Your task to perform on an android device: install app "Upside-Cash back on gas & food" Image 0: 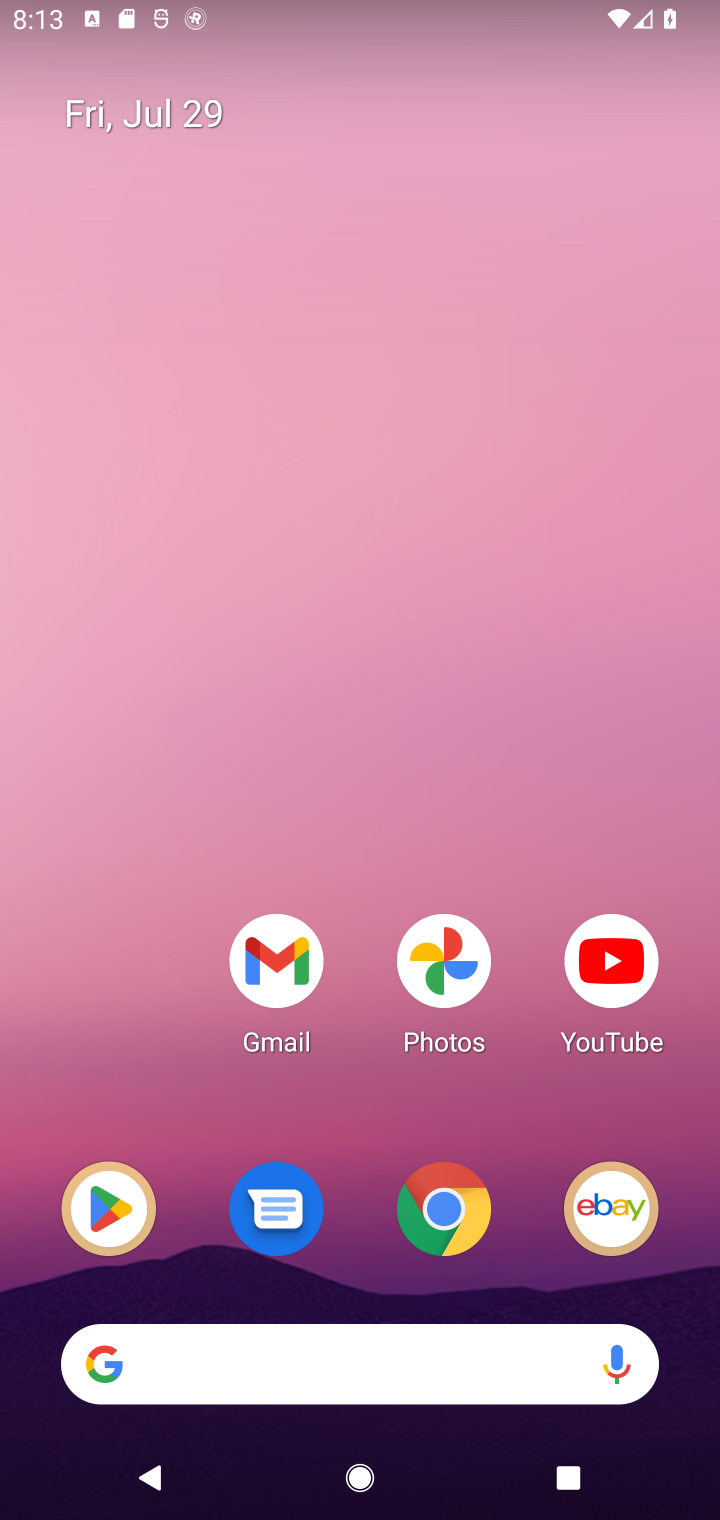
Step 0: click (117, 1225)
Your task to perform on an android device: install app "Upside-Cash back on gas & food" Image 1: 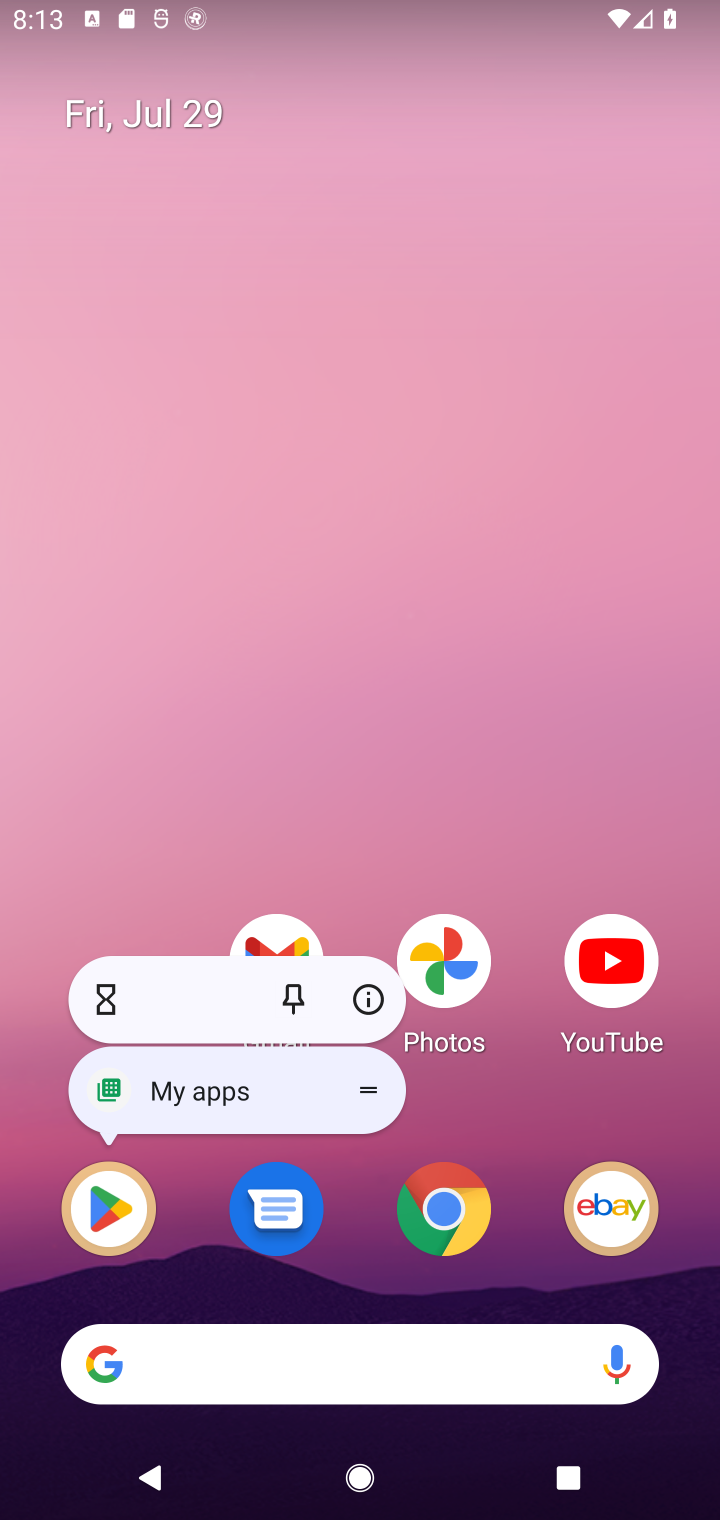
Step 1: click (112, 1221)
Your task to perform on an android device: install app "Upside-Cash back on gas & food" Image 2: 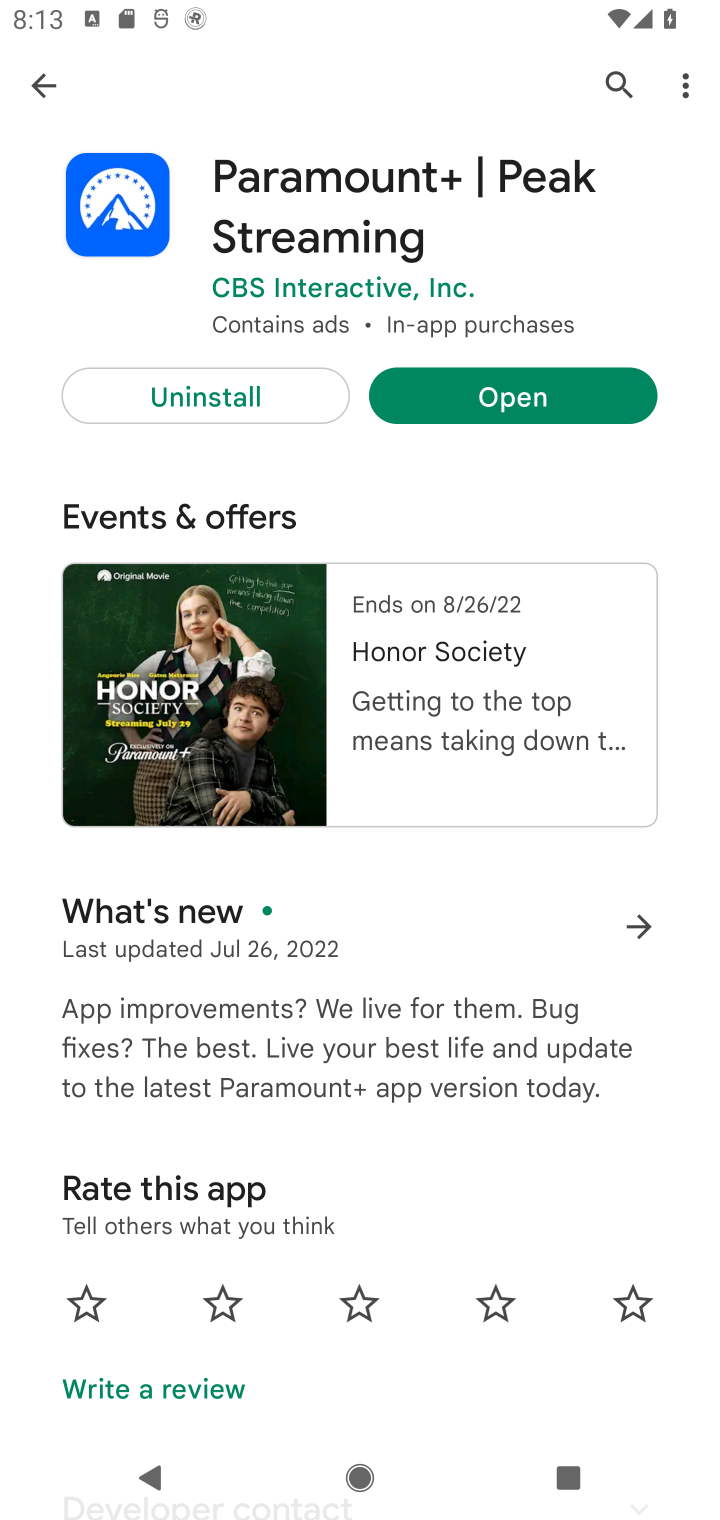
Step 2: click (611, 89)
Your task to perform on an android device: install app "Upside-Cash back on gas & food" Image 3: 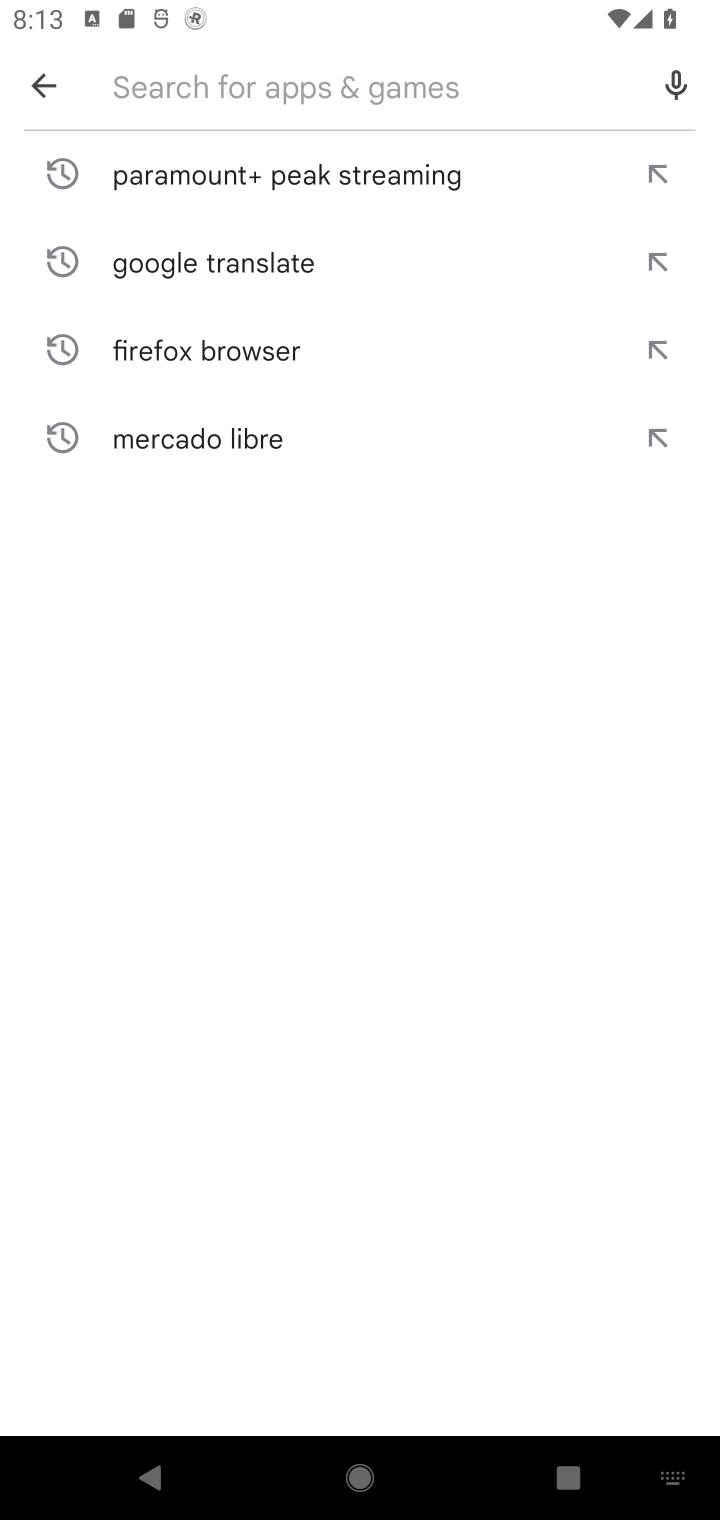
Step 3: type "Upside-Cash back on gas & food"
Your task to perform on an android device: install app "Upside-Cash back on gas & food" Image 4: 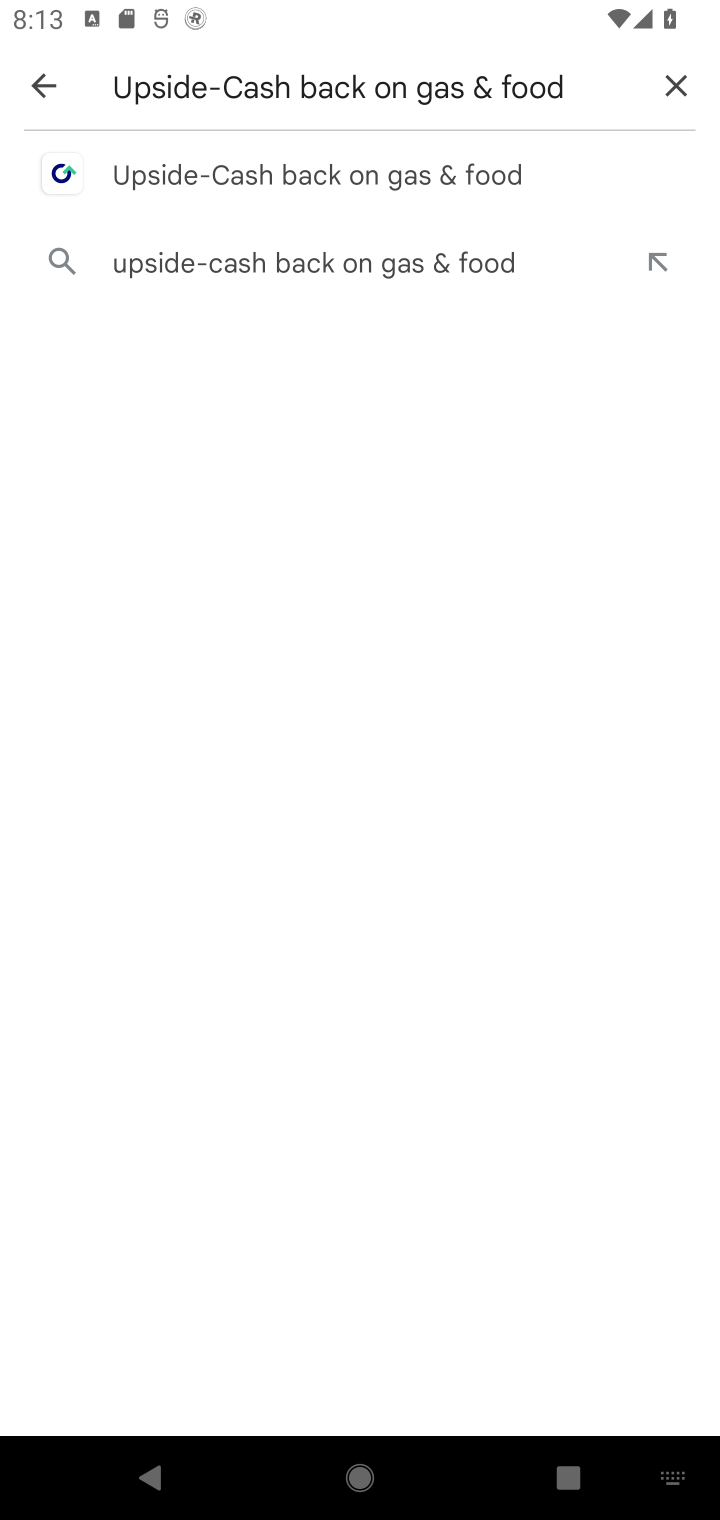
Step 4: click (218, 183)
Your task to perform on an android device: install app "Upside-Cash back on gas & food" Image 5: 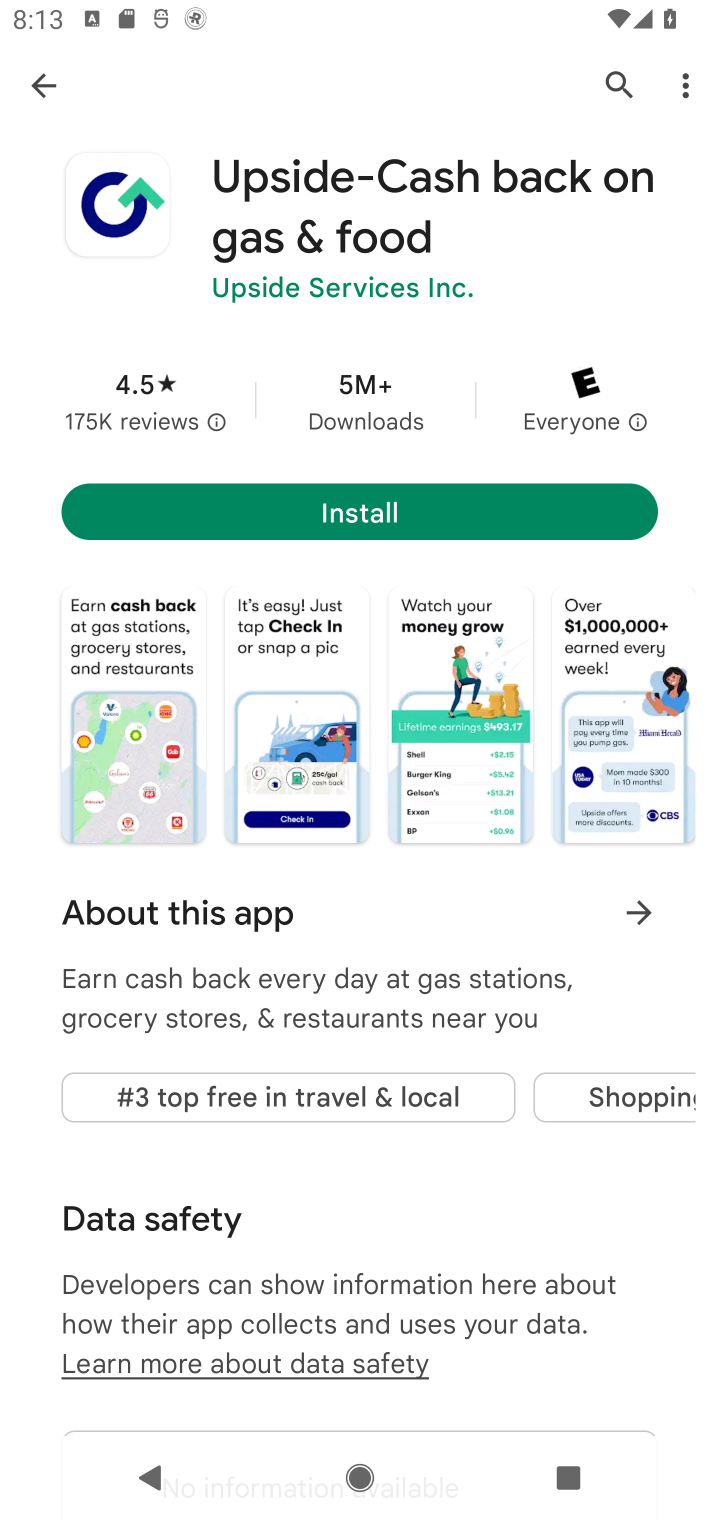
Step 5: click (309, 511)
Your task to perform on an android device: install app "Upside-Cash back on gas & food" Image 6: 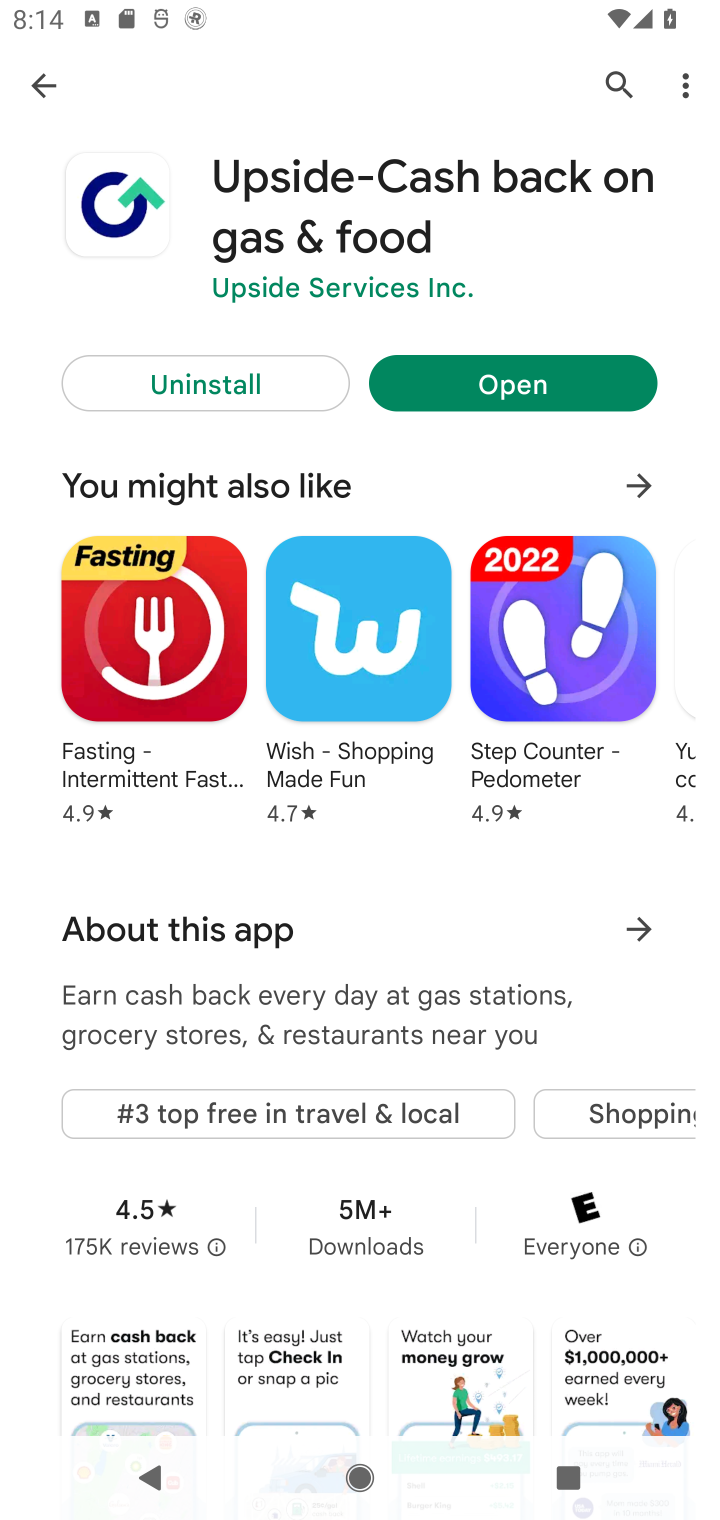
Step 6: task complete